Your task to perform on an android device: uninstall "Speedtest by Ookla" Image 0: 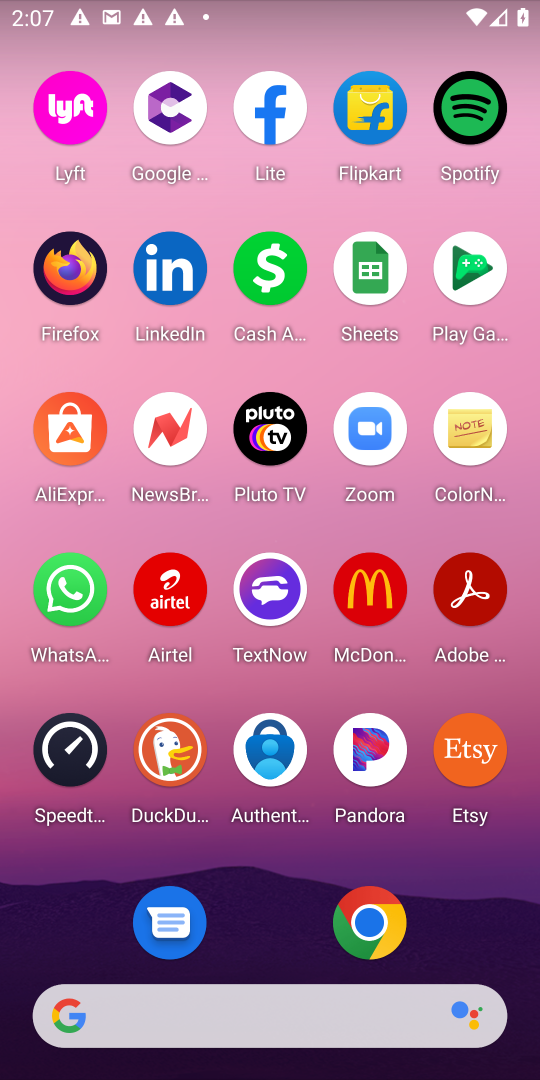
Step 0: drag from (240, 349) to (249, 217)
Your task to perform on an android device: uninstall "Speedtest by Ookla" Image 1: 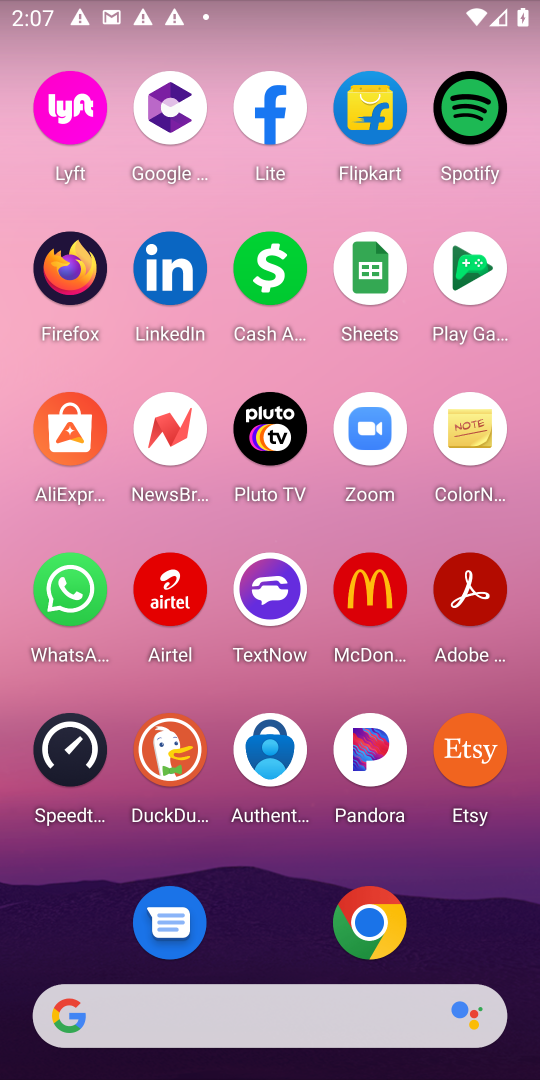
Step 1: drag from (284, 855) to (343, 10)
Your task to perform on an android device: uninstall "Speedtest by Ookla" Image 2: 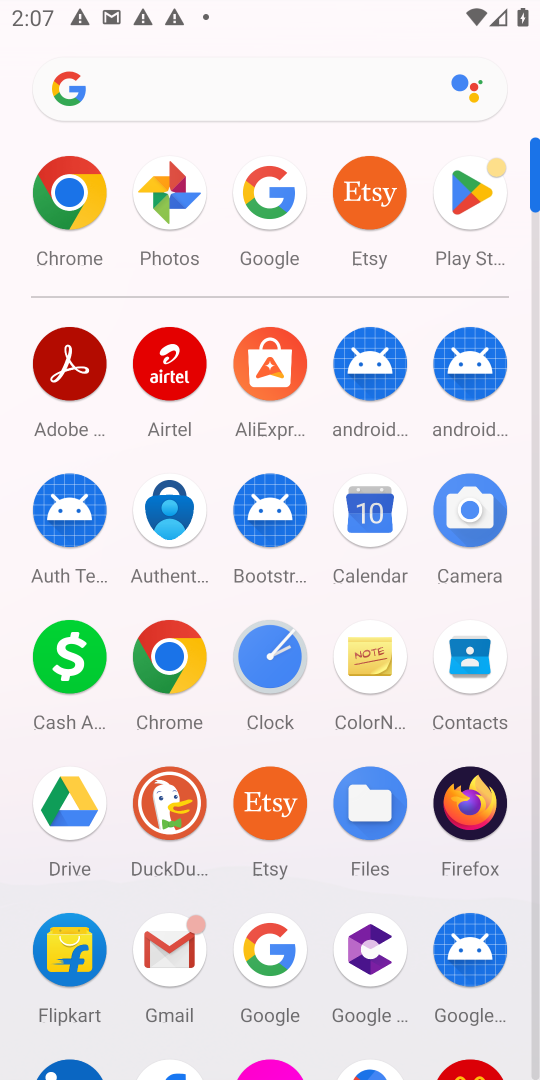
Step 2: click (471, 320)
Your task to perform on an android device: uninstall "Speedtest by Ookla" Image 3: 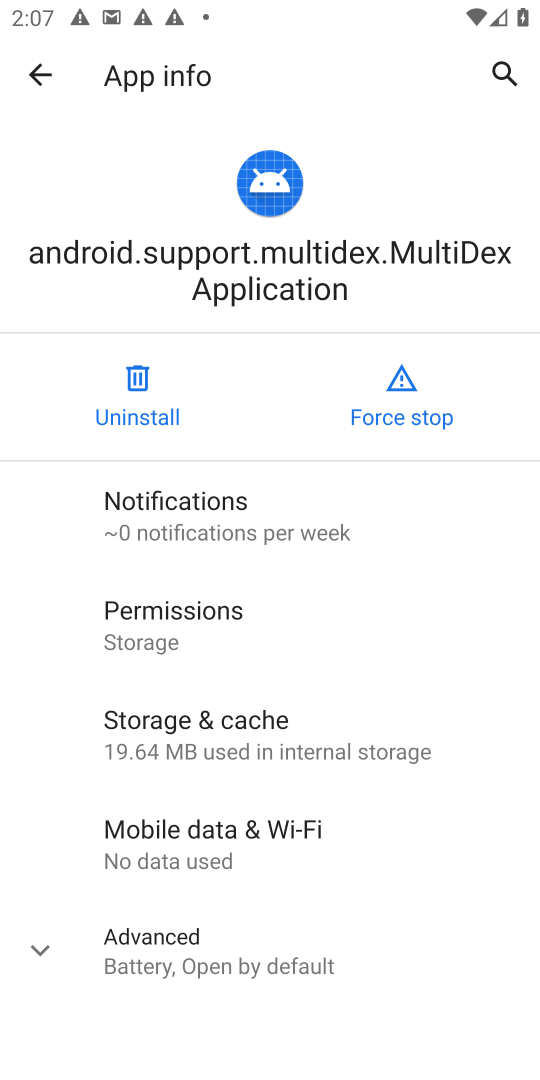
Step 3: click (37, 81)
Your task to perform on an android device: uninstall "Speedtest by Ookla" Image 4: 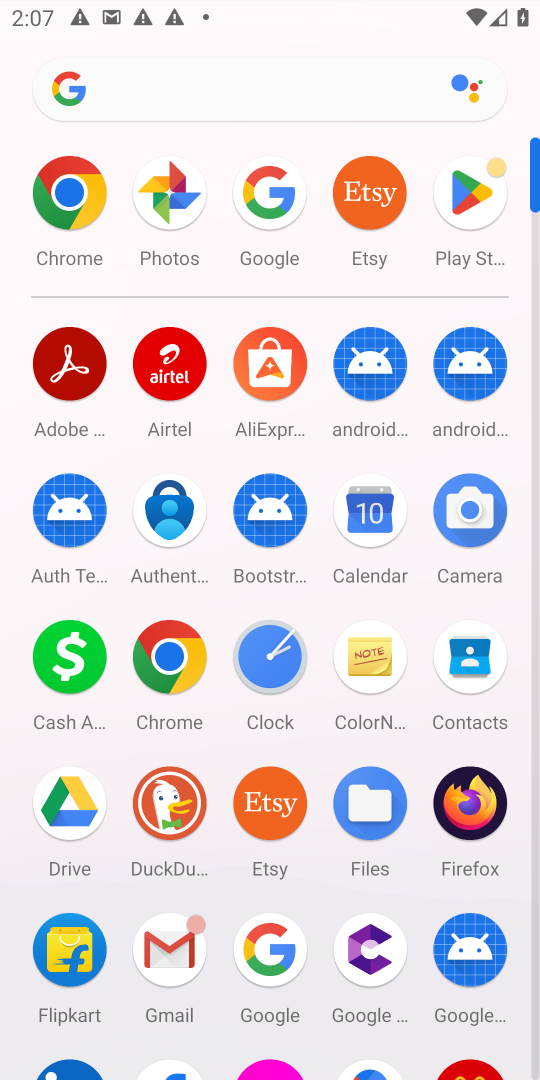
Step 4: click (474, 206)
Your task to perform on an android device: uninstall "Speedtest by Ookla" Image 5: 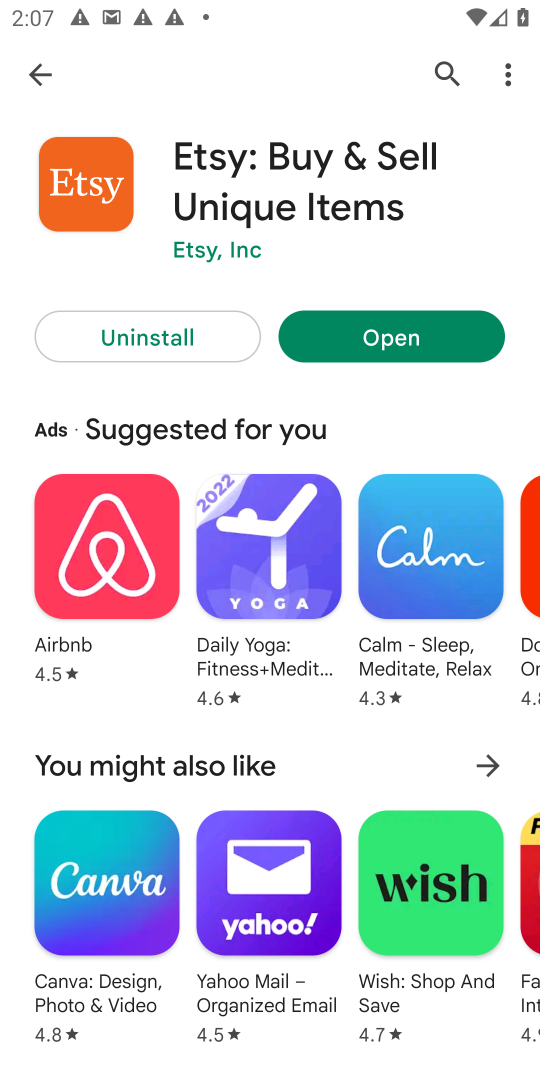
Step 5: click (34, 71)
Your task to perform on an android device: uninstall "Speedtest by Ookla" Image 6: 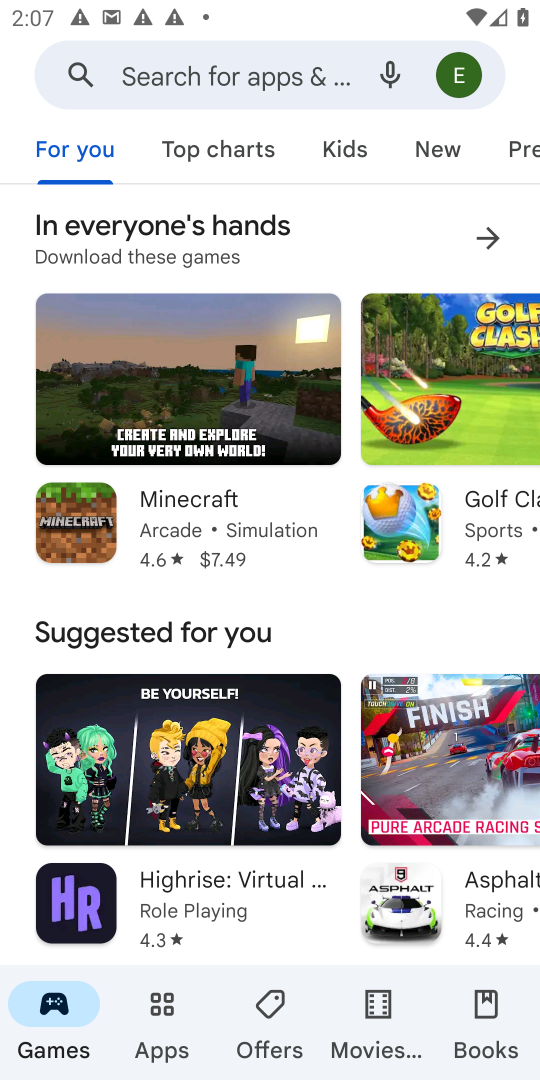
Step 6: click (217, 67)
Your task to perform on an android device: uninstall "Speedtest by Ookla" Image 7: 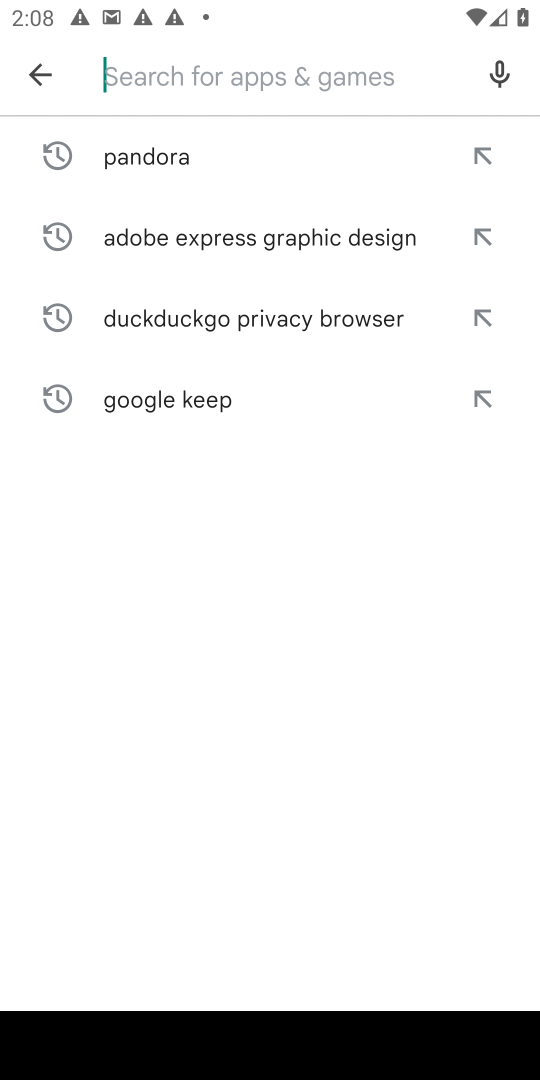
Step 7: type "Speedtest by Ookla"
Your task to perform on an android device: uninstall "Speedtest by Ookla" Image 8: 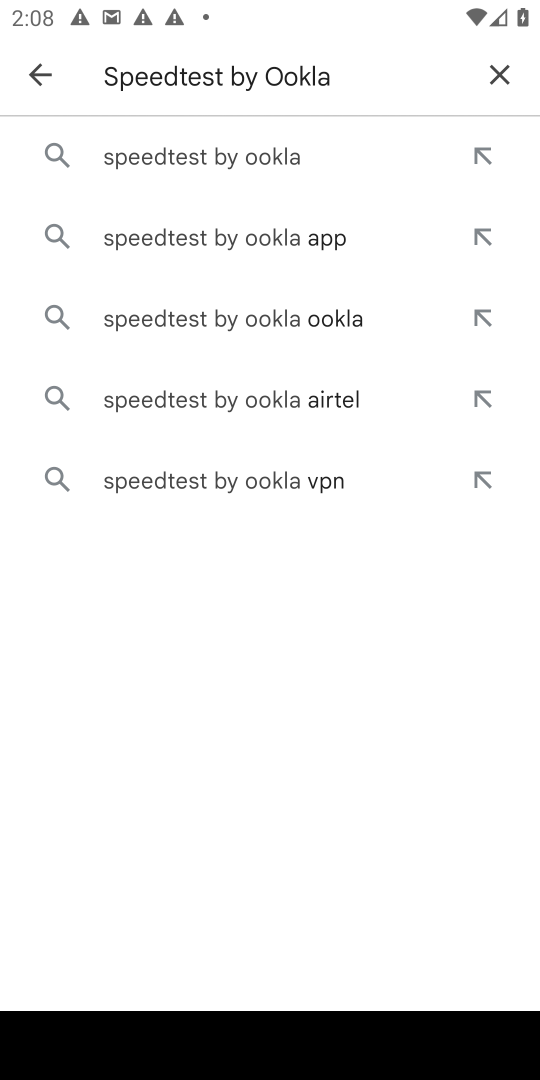
Step 8: click (179, 158)
Your task to perform on an android device: uninstall "Speedtest by Ookla" Image 9: 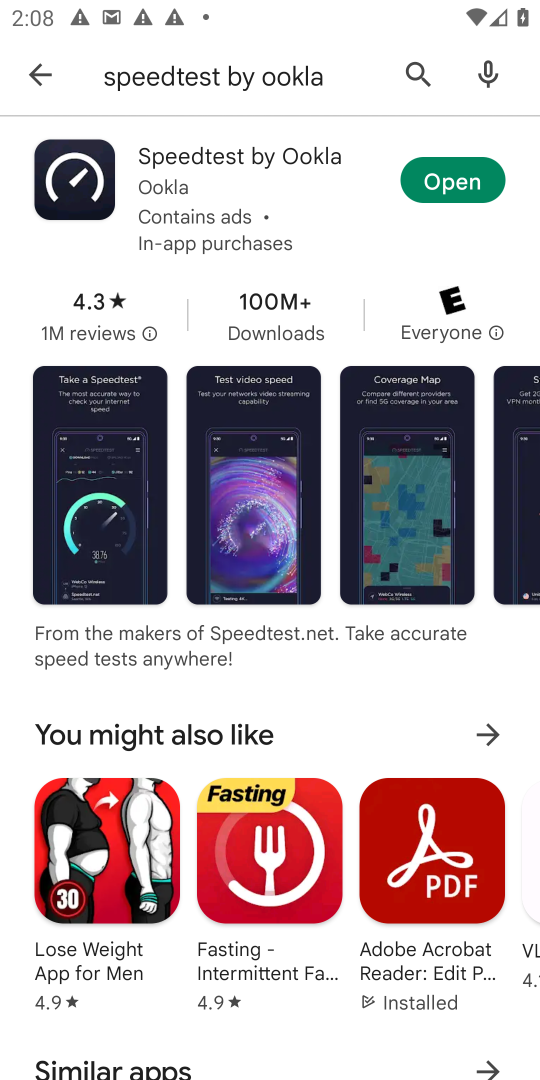
Step 9: task complete